Your task to perform on an android device: Open Reddit.com Image 0: 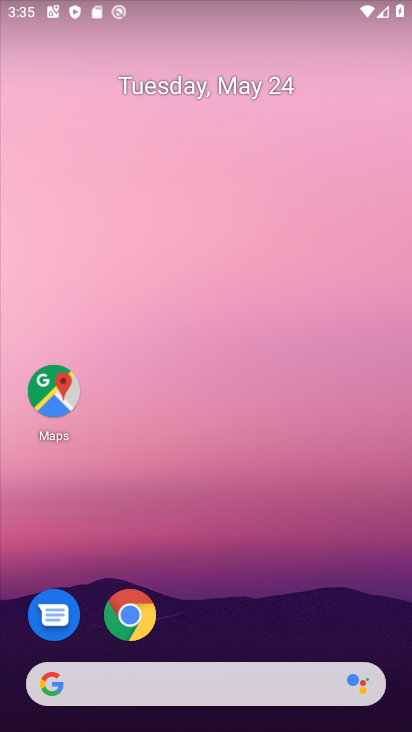
Step 0: click (127, 621)
Your task to perform on an android device: Open Reddit.com Image 1: 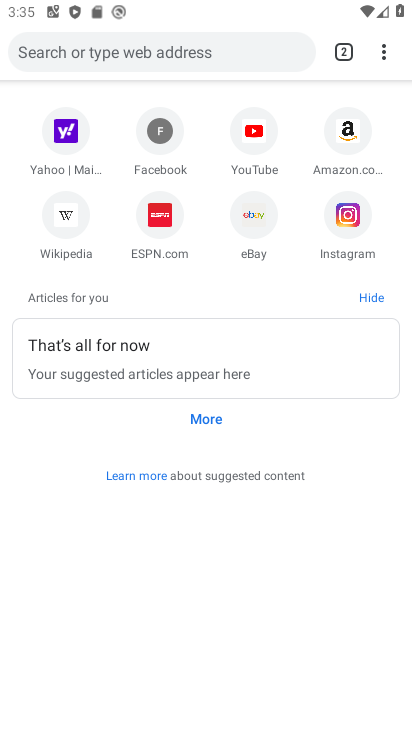
Step 1: click (200, 49)
Your task to perform on an android device: Open Reddit.com Image 2: 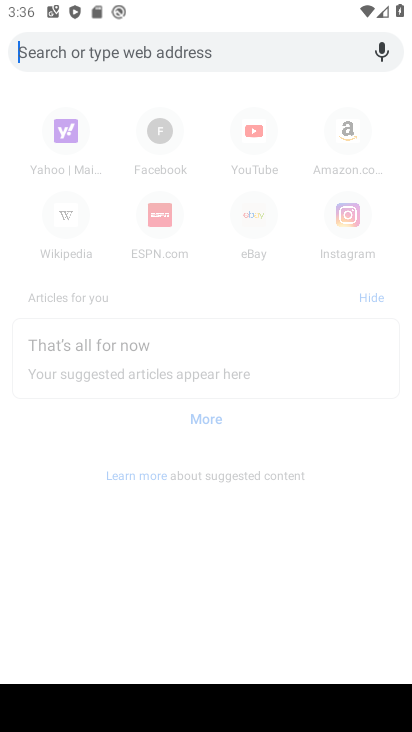
Step 2: type "Reddit.com"
Your task to perform on an android device: Open Reddit.com Image 3: 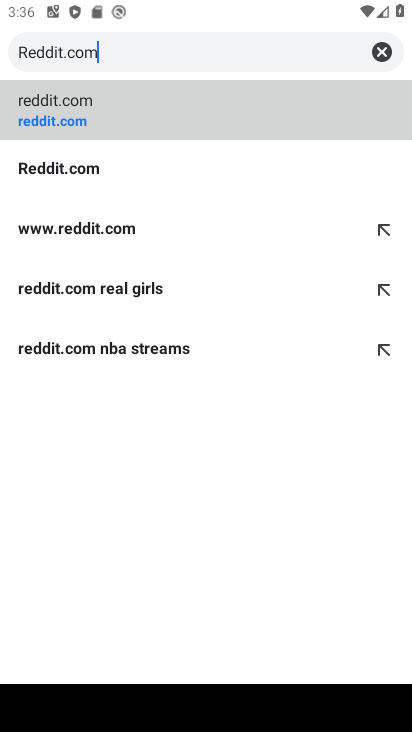
Step 3: click (52, 105)
Your task to perform on an android device: Open Reddit.com Image 4: 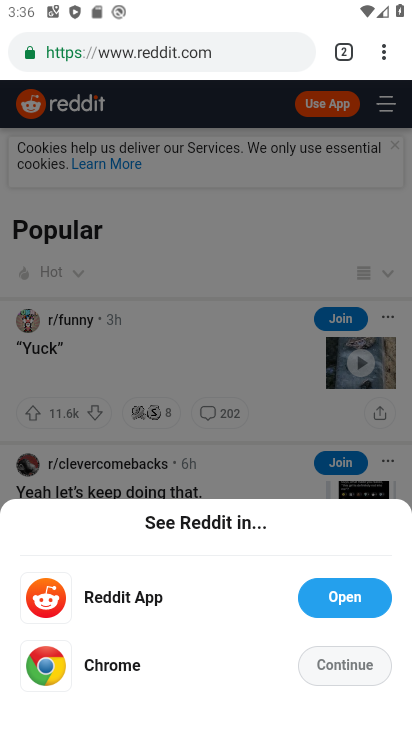
Step 4: task complete